Your task to perform on an android device: stop showing notifications on the lock screen Image 0: 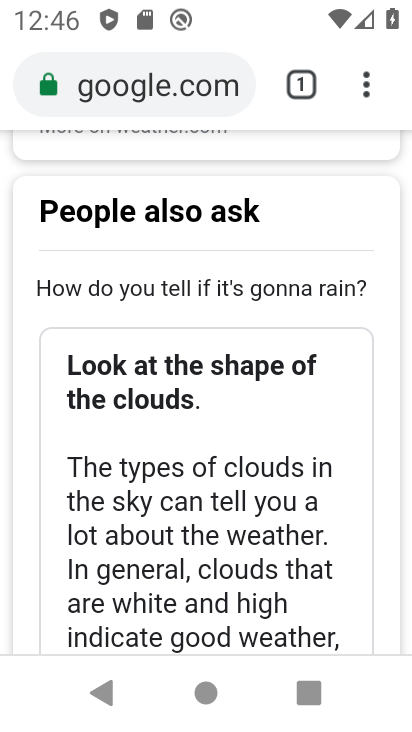
Step 0: press home button
Your task to perform on an android device: stop showing notifications on the lock screen Image 1: 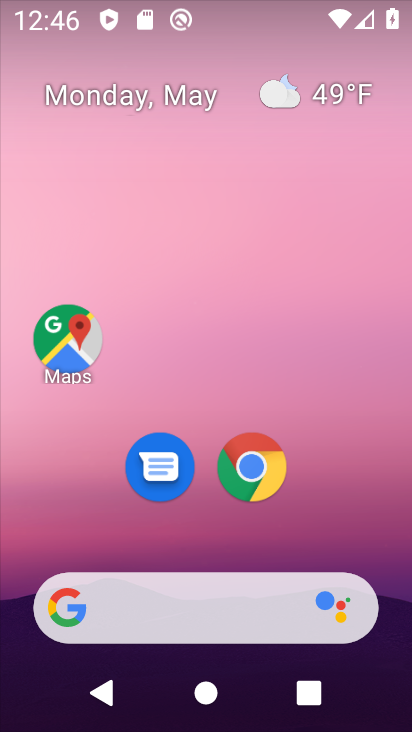
Step 1: drag from (338, 496) to (327, 94)
Your task to perform on an android device: stop showing notifications on the lock screen Image 2: 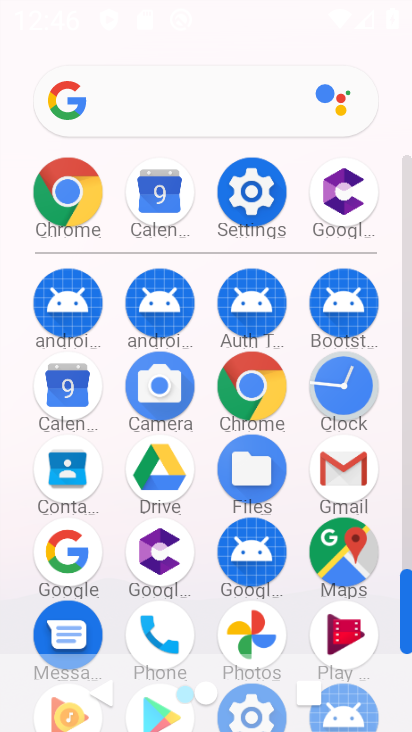
Step 2: click (223, 187)
Your task to perform on an android device: stop showing notifications on the lock screen Image 3: 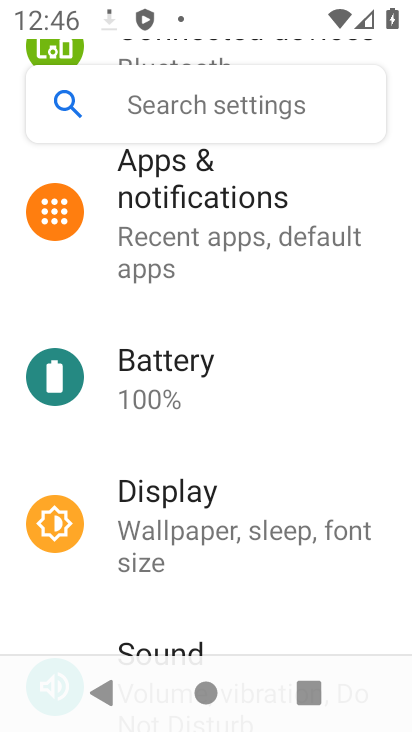
Step 3: drag from (342, 604) to (361, 313)
Your task to perform on an android device: stop showing notifications on the lock screen Image 4: 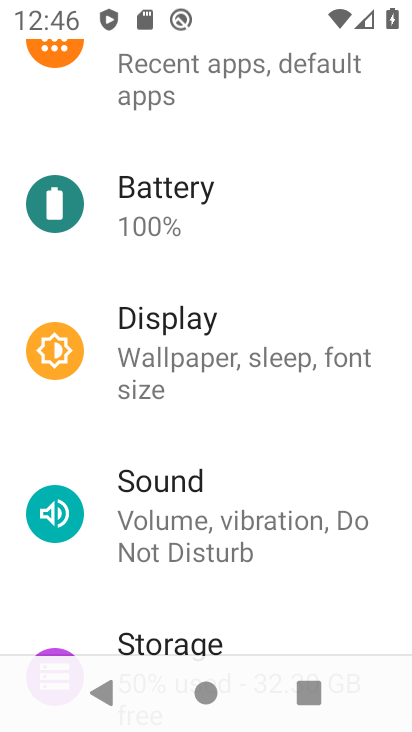
Step 4: drag from (248, 518) to (209, 248)
Your task to perform on an android device: stop showing notifications on the lock screen Image 5: 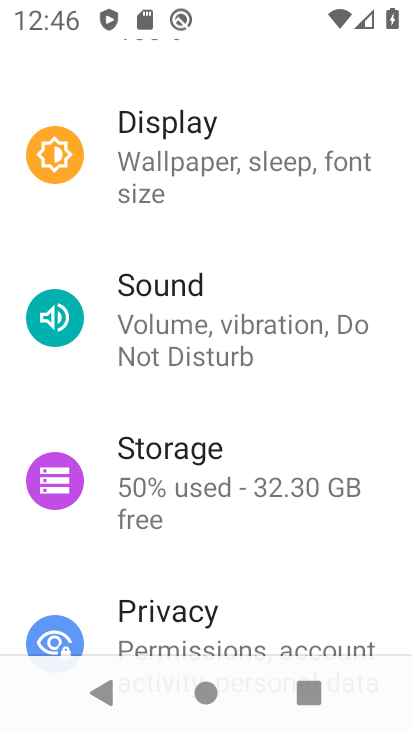
Step 5: drag from (274, 100) to (240, 533)
Your task to perform on an android device: stop showing notifications on the lock screen Image 6: 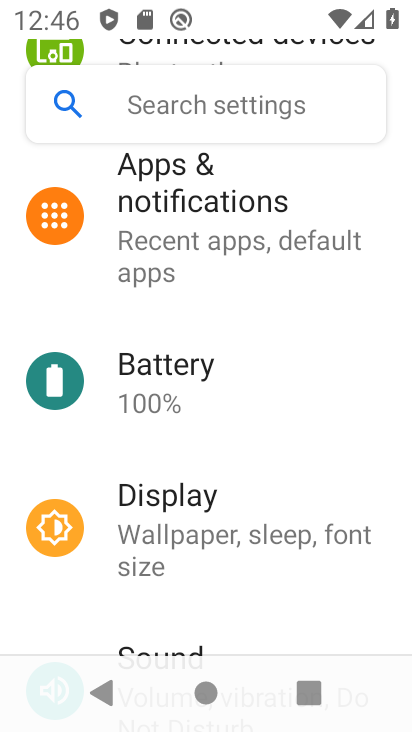
Step 6: click (242, 244)
Your task to perform on an android device: stop showing notifications on the lock screen Image 7: 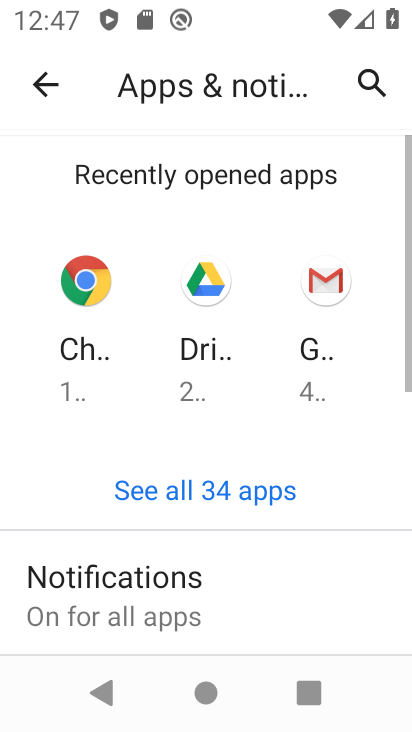
Step 7: drag from (269, 652) to (319, 300)
Your task to perform on an android device: stop showing notifications on the lock screen Image 8: 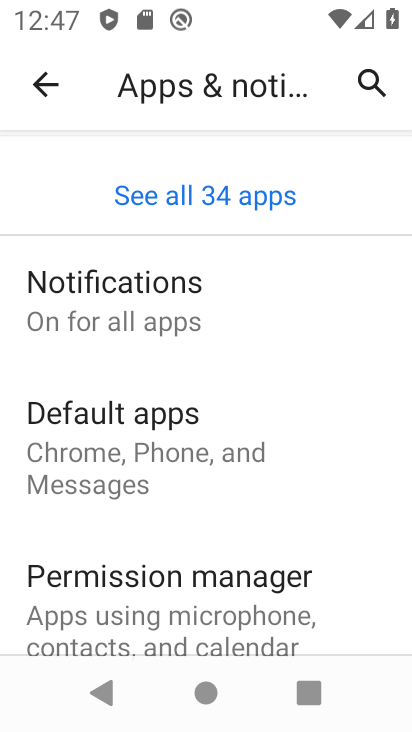
Step 8: click (143, 306)
Your task to perform on an android device: stop showing notifications on the lock screen Image 9: 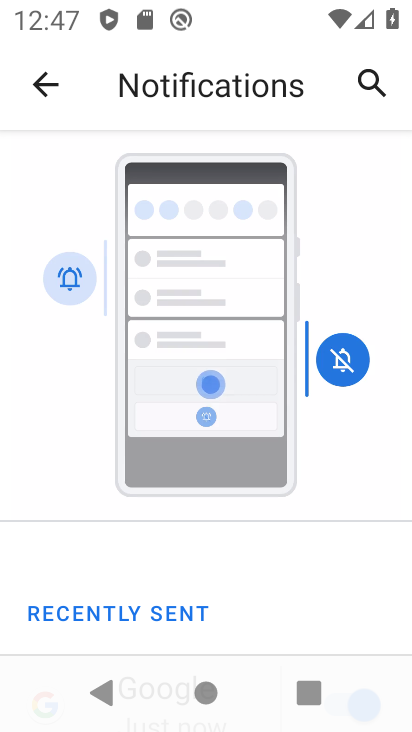
Step 9: drag from (281, 602) to (362, 230)
Your task to perform on an android device: stop showing notifications on the lock screen Image 10: 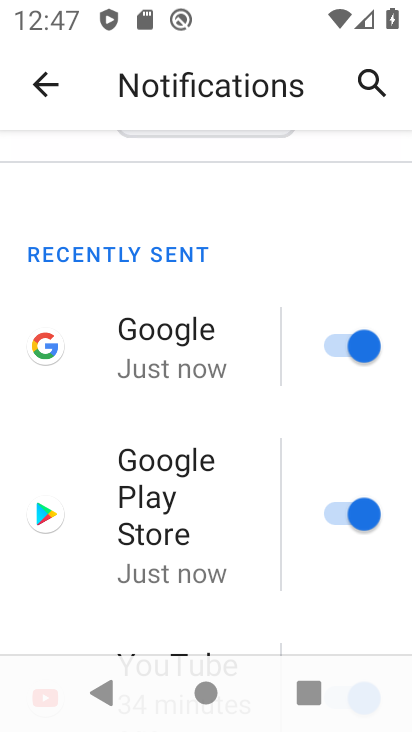
Step 10: drag from (262, 571) to (300, 202)
Your task to perform on an android device: stop showing notifications on the lock screen Image 11: 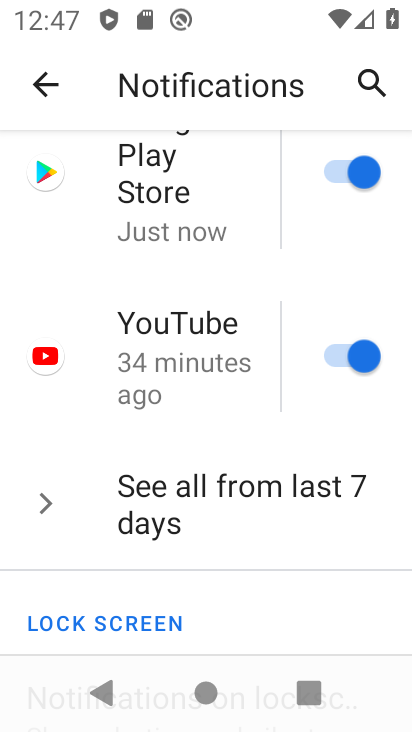
Step 11: drag from (204, 623) to (222, 234)
Your task to perform on an android device: stop showing notifications on the lock screen Image 12: 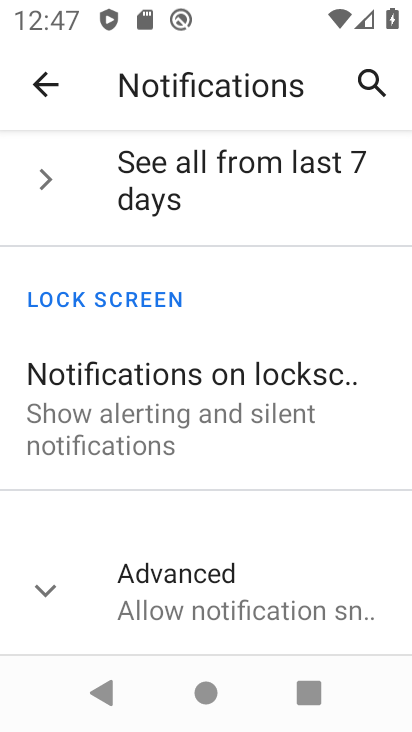
Step 12: click (223, 422)
Your task to perform on an android device: stop showing notifications on the lock screen Image 13: 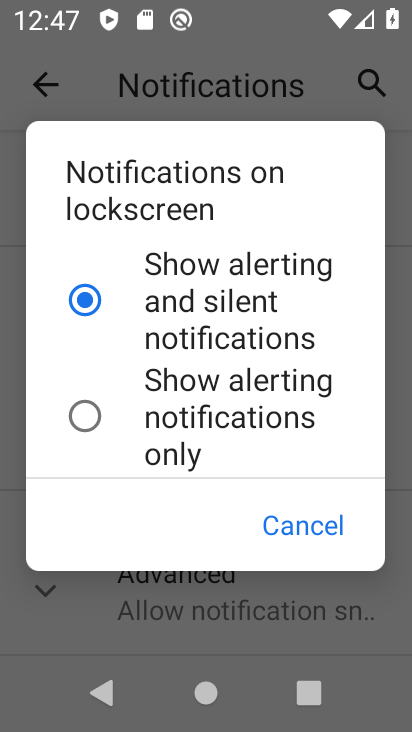
Step 13: click (281, 534)
Your task to perform on an android device: stop showing notifications on the lock screen Image 14: 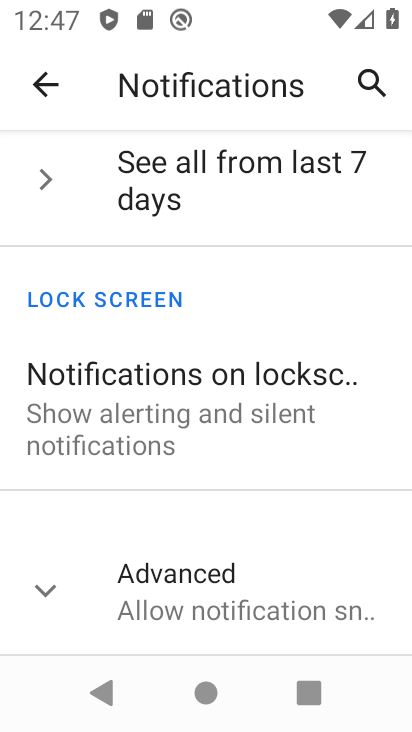
Step 14: click (159, 428)
Your task to perform on an android device: stop showing notifications on the lock screen Image 15: 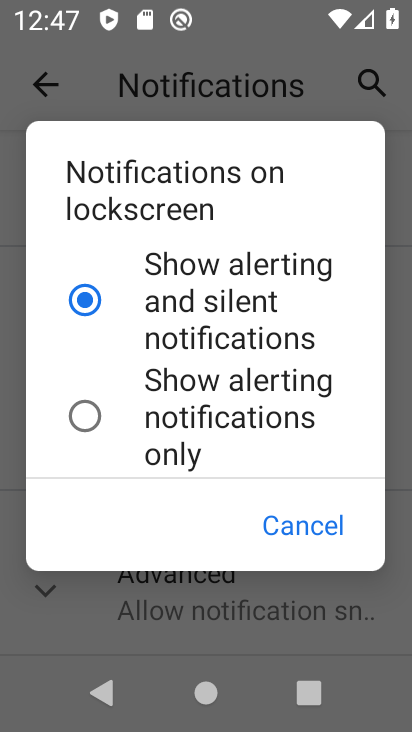
Step 15: click (95, 420)
Your task to perform on an android device: stop showing notifications on the lock screen Image 16: 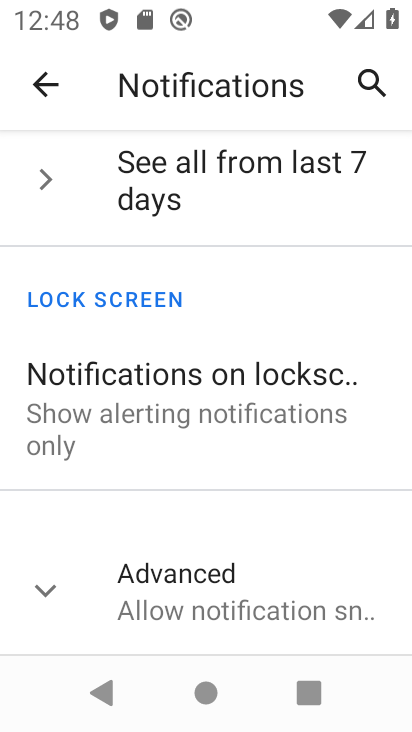
Step 16: task complete